Your task to perform on an android device: turn off picture-in-picture Image 0: 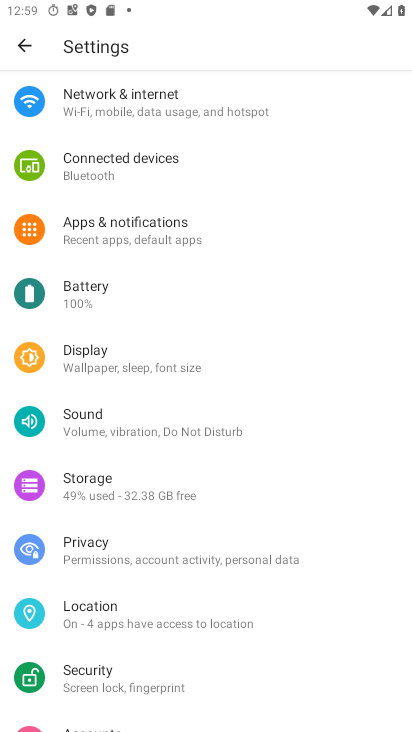
Step 0: press home button
Your task to perform on an android device: turn off picture-in-picture Image 1: 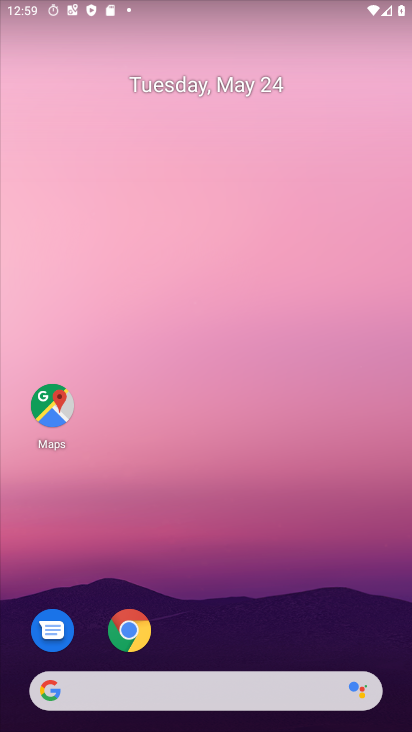
Step 1: click (128, 642)
Your task to perform on an android device: turn off picture-in-picture Image 2: 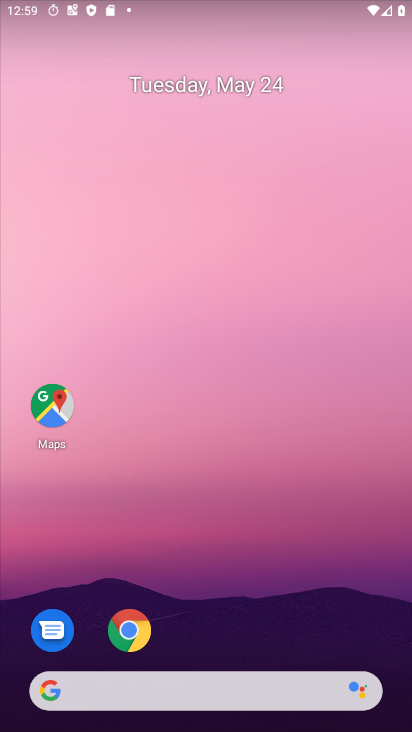
Step 2: click (232, 483)
Your task to perform on an android device: turn off picture-in-picture Image 3: 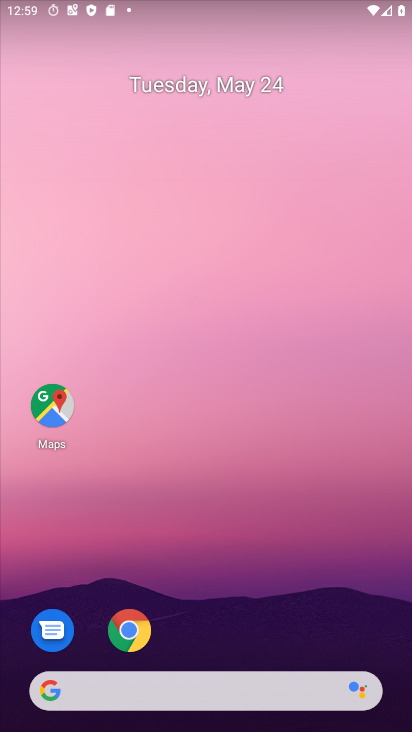
Step 3: click (129, 629)
Your task to perform on an android device: turn off picture-in-picture Image 4: 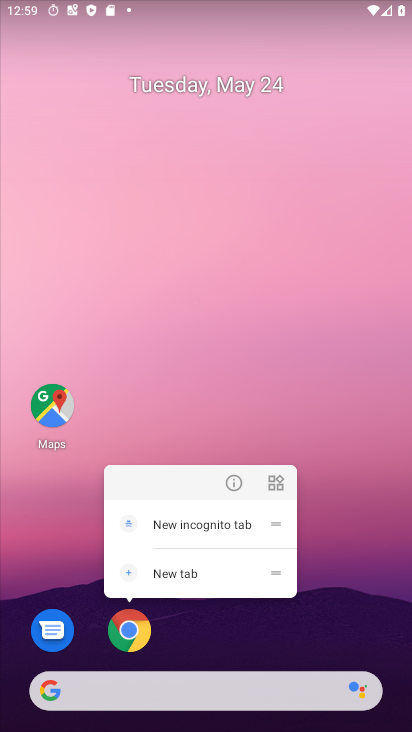
Step 4: click (233, 485)
Your task to perform on an android device: turn off picture-in-picture Image 5: 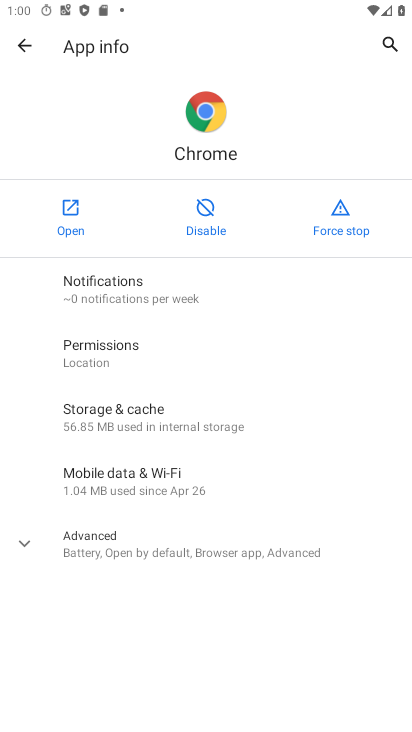
Step 5: click (22, 550)
Your task to perform on an android device: turn off picture-in-picture Image 6: 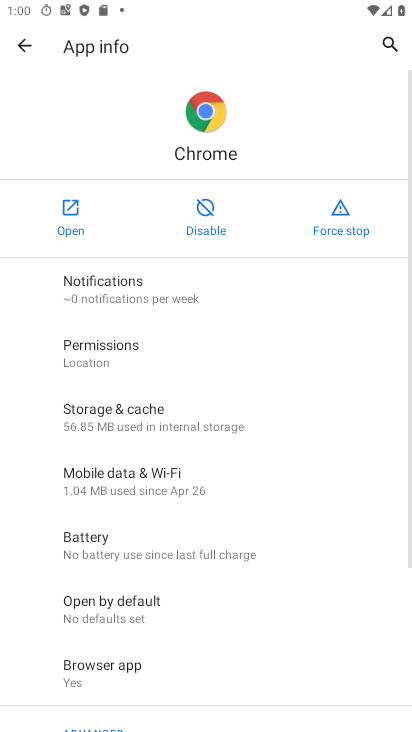
Step 6: drag from (223, 616) to (196, 324)
Your task to perform on an android device: turn off picture-in-picture Image 7: 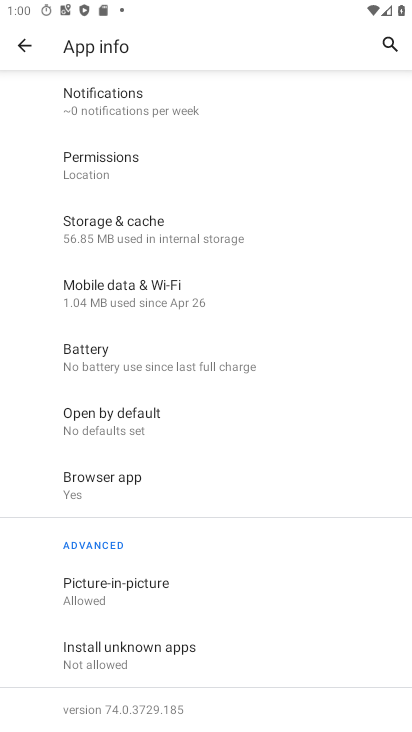
Step 7: click (90, 592)
Your task to perform on an android device: turn off picture-in-picture Image 8: 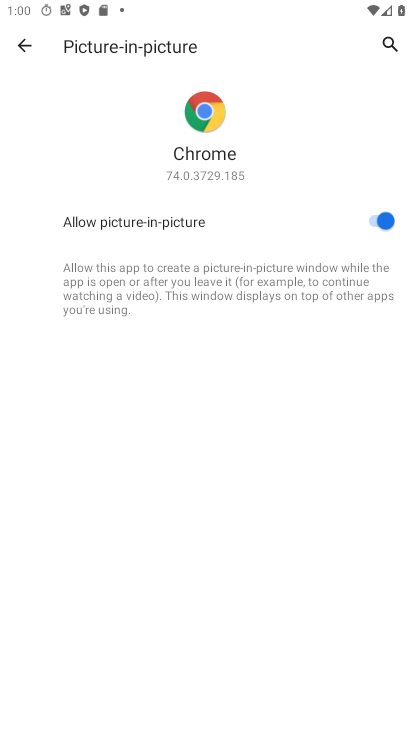
Step 8: click (379, 212)
Your task to perform on an android device: turn off picture-in-picture Image 9: 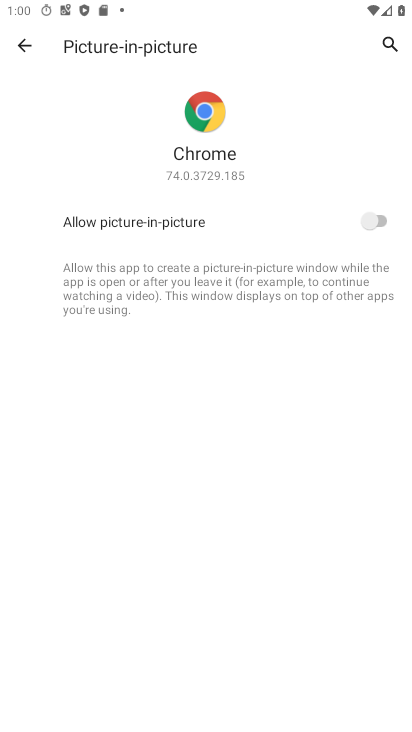
Step 9: task complete